Your task to perform on an android device: check google app version Image 0: 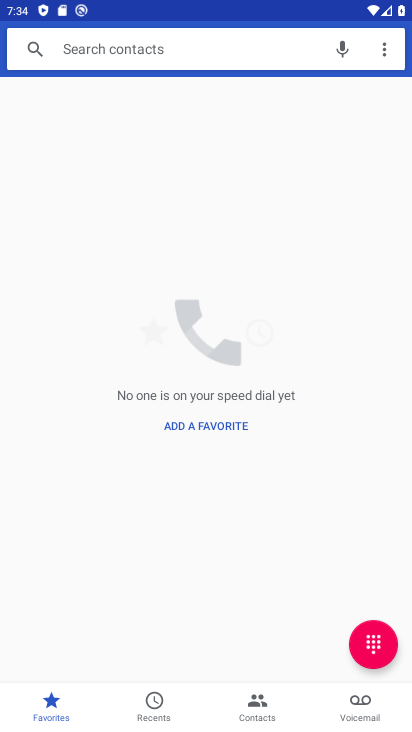
Step 0: press home button
Your task to perform on an android device: check google app version Image 1: 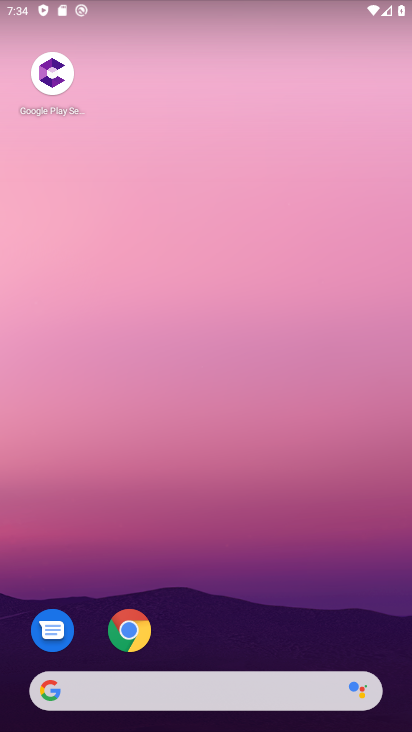
Step 1: drag from (208, 665) to (256, 294)
Your task to perform on an android device: check google app version Image 2: 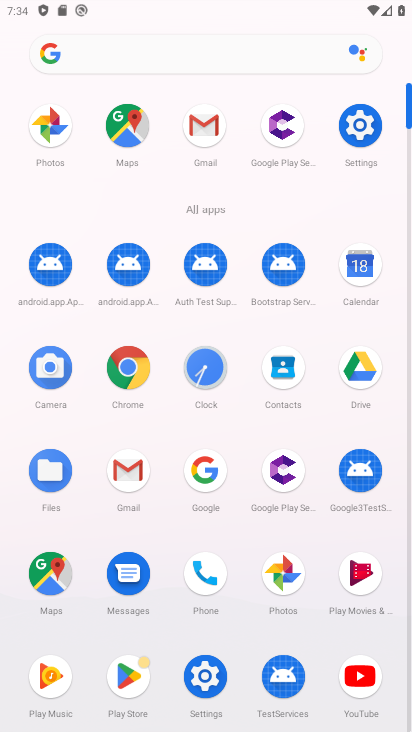
Step 2: click (209, 465)
Your task to perform on an android device: check google app version Image 3: 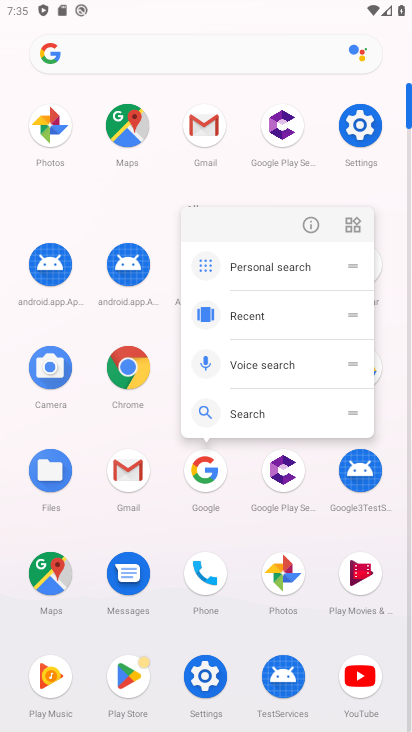
Step 3: click (309, 230)
Your task to perform on an android device: check google app version Image 4: 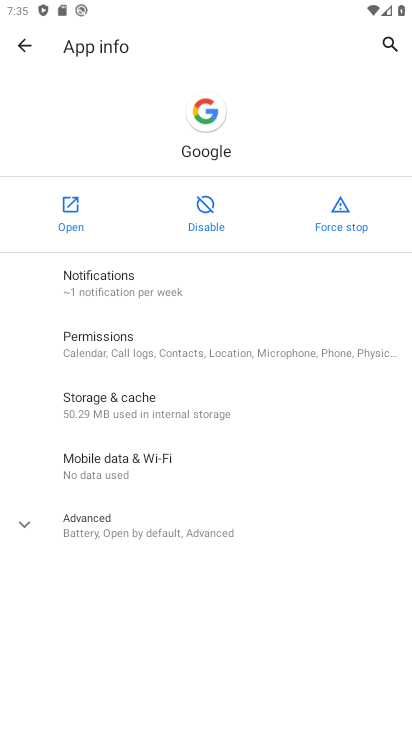
Step 4: click (18, 525)
Your task to perform on an android device: check google app version Image 5: 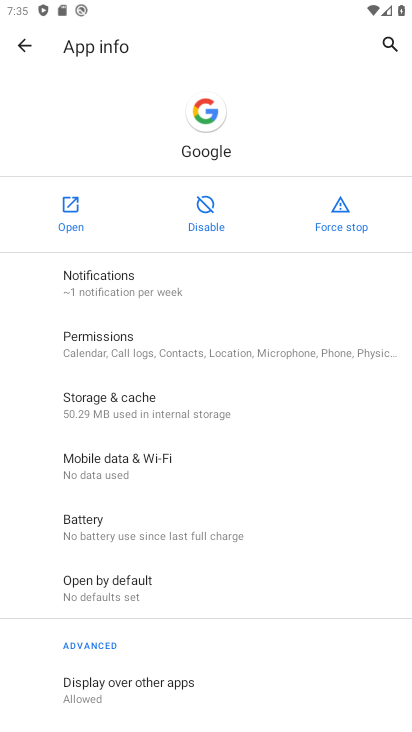
Step 5: task complete